Your task to perform on an android device: Go to Amazon Image 0: 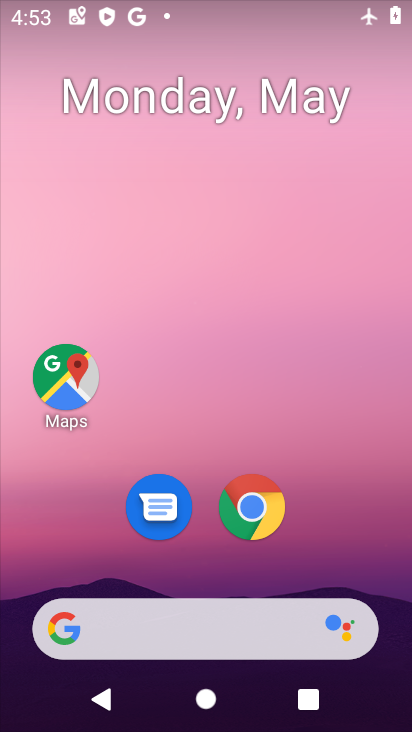
Step 0: click (264, 518)
Your task to perform on an android device: Go to Amazon Image 1: 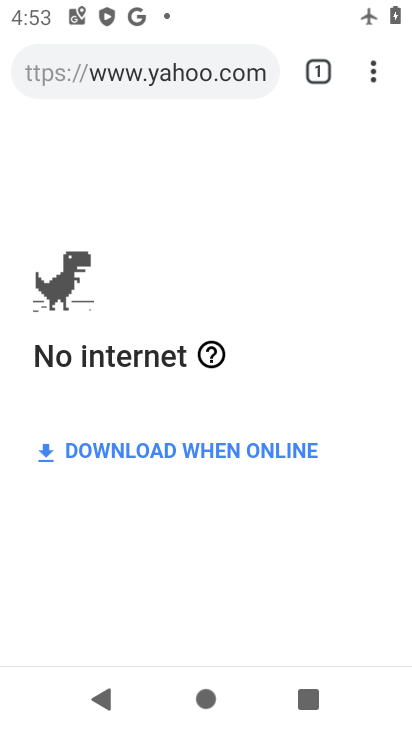
Step 1: click (175, 74)
Your task to perform on an android device: Go to Amazon Image 2: 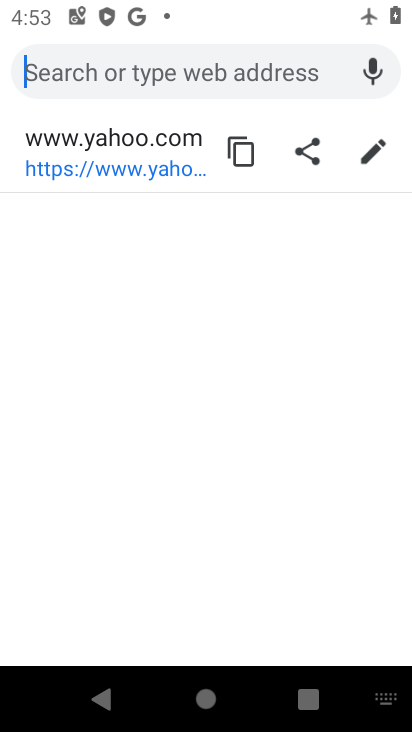
Step 2: type "amazon"
Your task to perform on an android device: Go to Amazon Image 3: 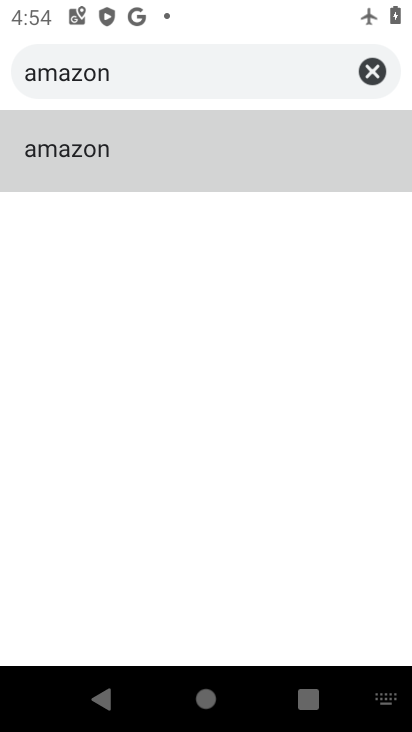
Step 3: click (98, 171)
Your task to perform on an android device: Go to Amazon Image 4: 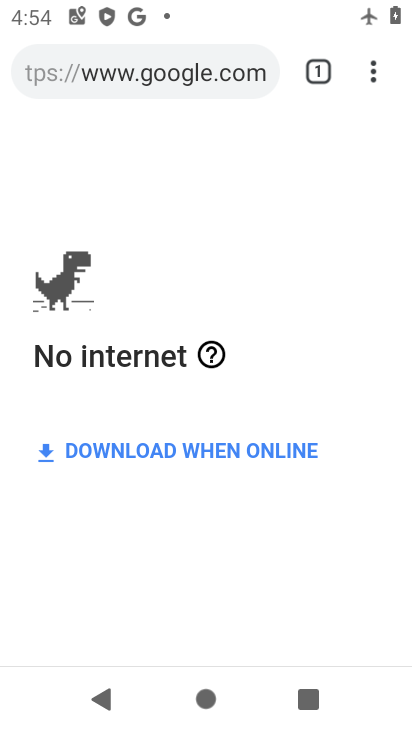
Step 4: task complete